Your task to perform on an android device: Go to ESPN.com Image 0: 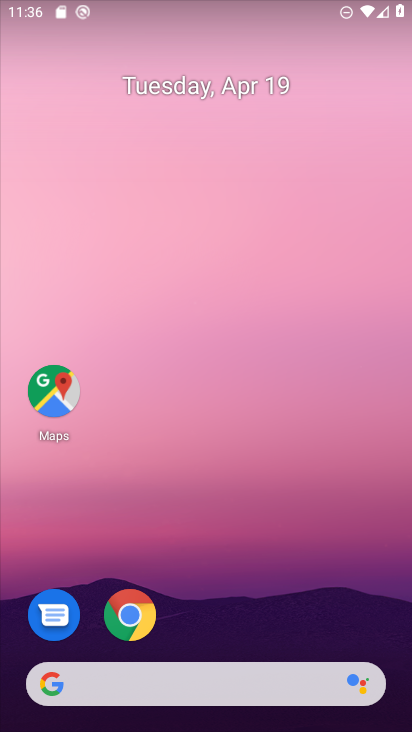
Step 0: click (134, 615)
Your task to perform on an android device: Go to ESPN.com Image 1: 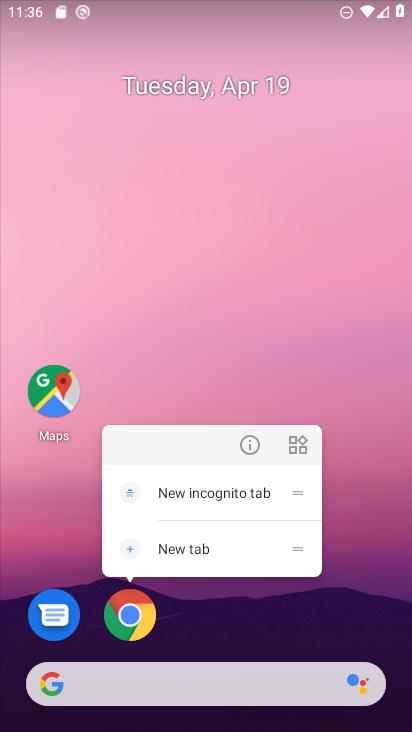
Step 1: click (133, 615)
Your task to perform on an android device: Go to ESPN.com Image 2: 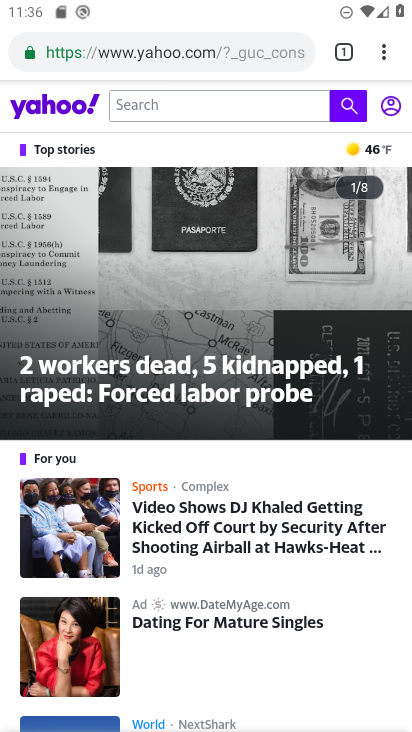
Step 2: click (342, 45)
Your task to perform on an android device: Go to ESPN.com Image 3: 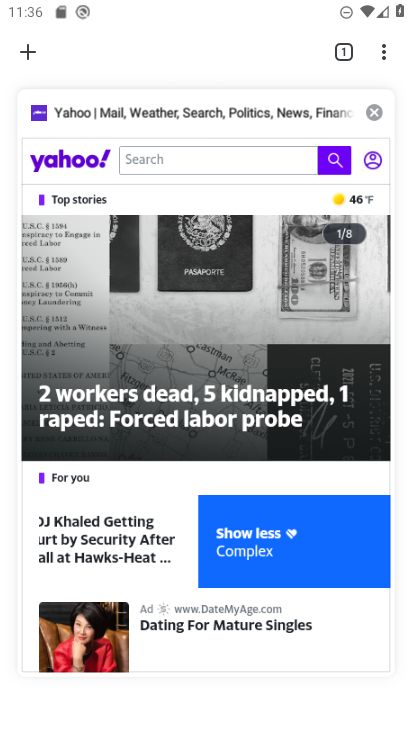
Step 3: click (366, 113)
Your task to perform on an android device: Go to ESPN.com Image 4: 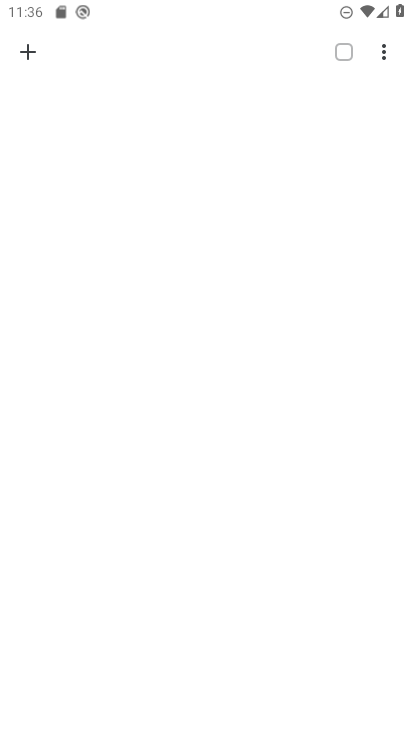
Step 4: click (30, 39)
Your task to perform on an android device: Go to ESPN.com Image 5: 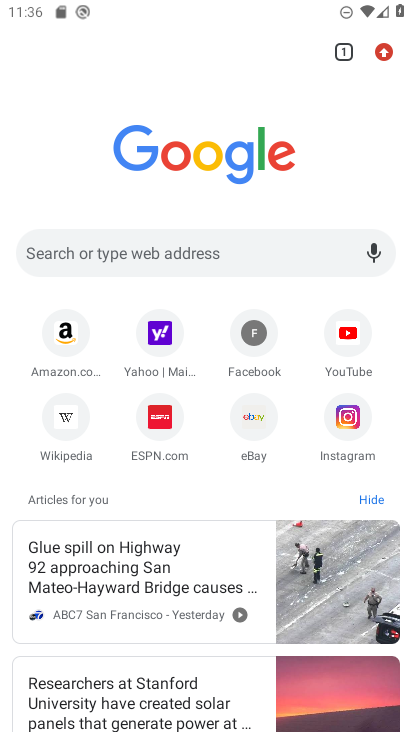
Step 5: click (146, 259)
Your task to perform on an android device: Go to ESPN.com Image 6: 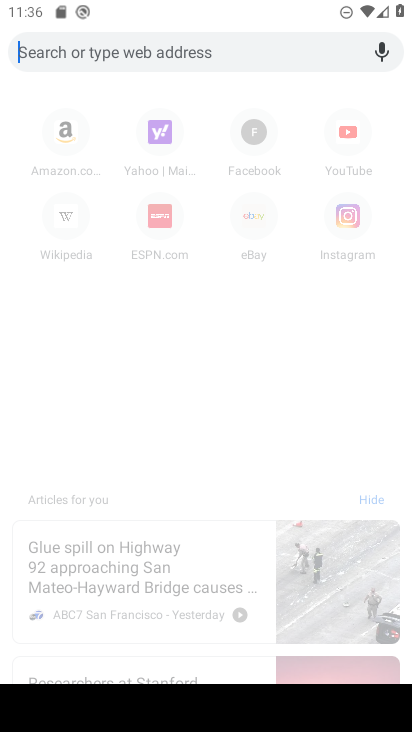
Step 6: click (156, 232)
Your task to perform on an android device: Go to ESPN.com Image 7: 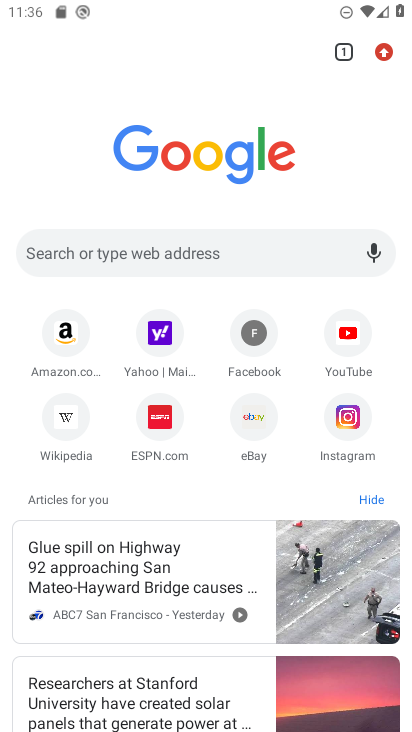
Step 7: click (160, 429)
Your task to perform on an android device: Go to ESPN.com Image 8: 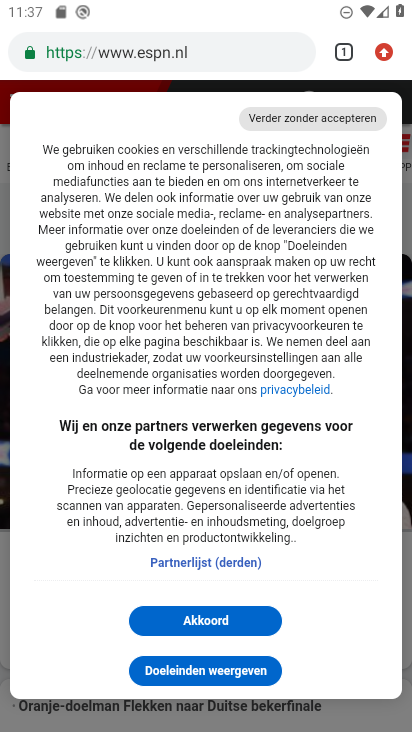
Step 8: click (197, 671)
Your task to perform on an android device: Go to ESPN.com Image 9: 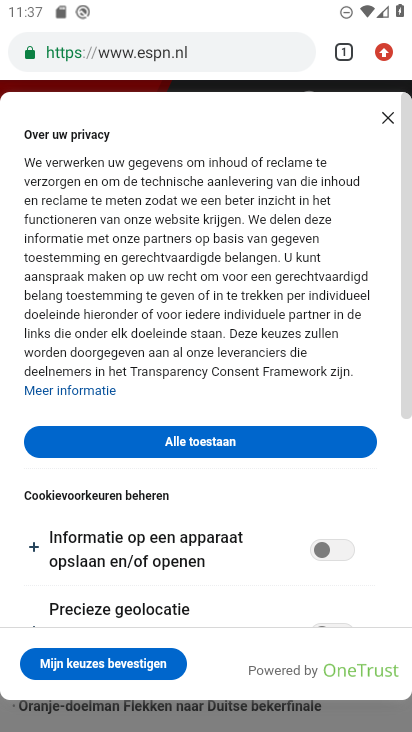
Step 9: task complete